Your task to perform on an android device: What is the news today? Image 0: 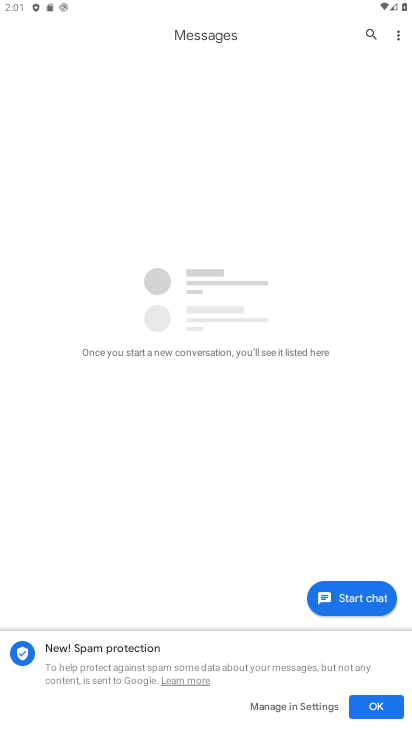
Step 0: press home button
Your task to perform on an android device: What is the news today? Image 1: 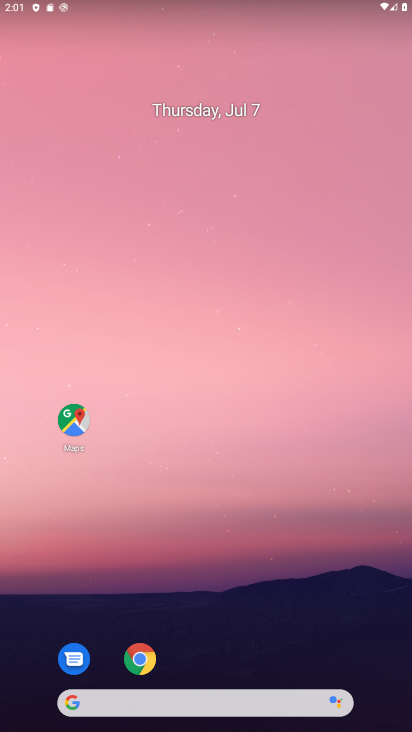
Step 1: task complete